Your task to perform on an android device: Open display settings Image 0: 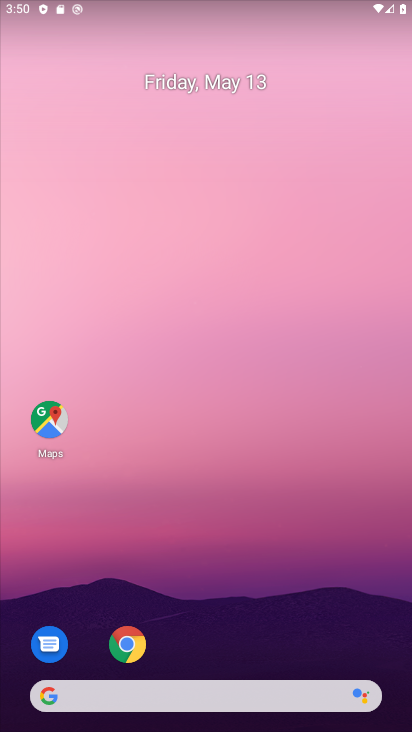
Step 0: drag from (324, 603) to (240, 141)
Your task to perform on an android device: Open display settings Image 1: 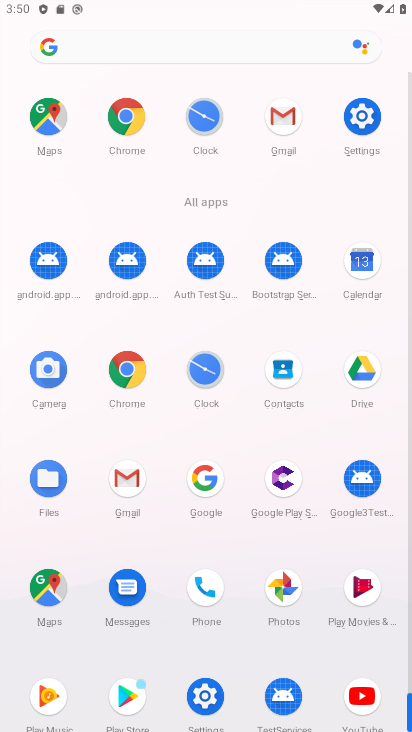
Step 1: click (361, 116)
Your task to perform on an android device: Open display settings Image 2: 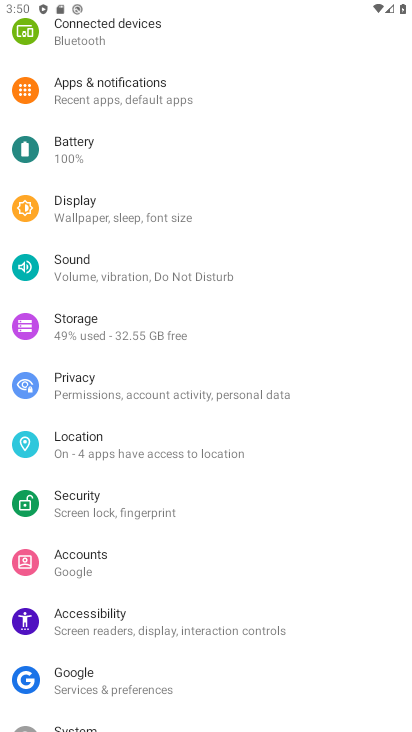
Step 2: click (127, 215)
Your task to perform on an android device: Open display settings Image 3: 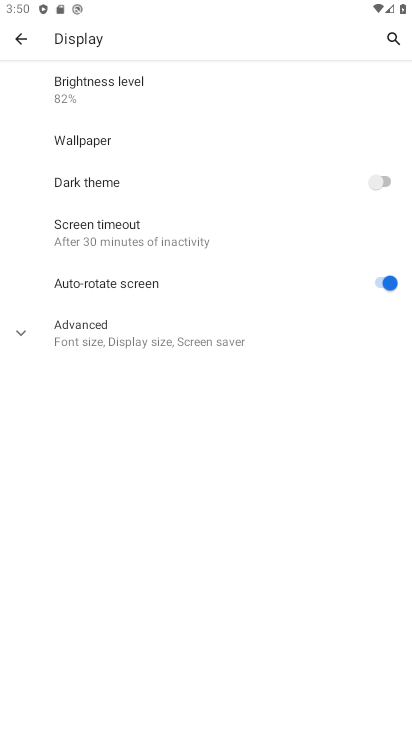
Step 3: task complete